Your task to perform on an android device: Go to Google maps Image 0: 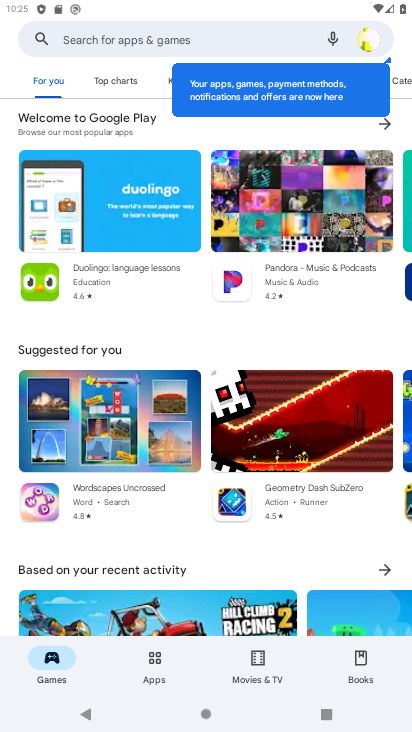
Step 0: press home button
Your task to perform on an android device: Go to Google maps Image 1: 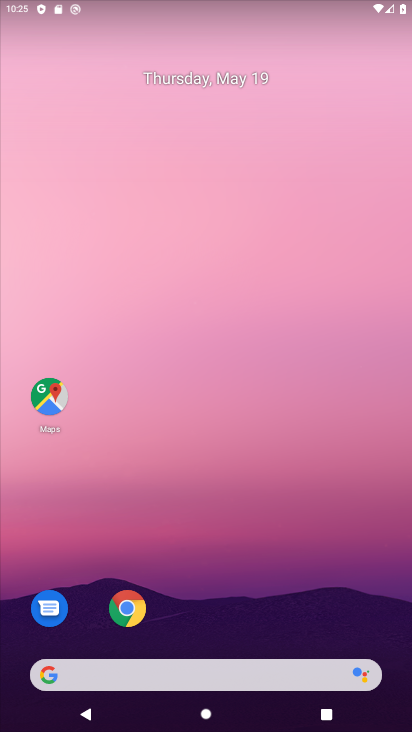
Step 1: click (37, 391)
Your task to perform on an android device: Go to Google maps Image 2: 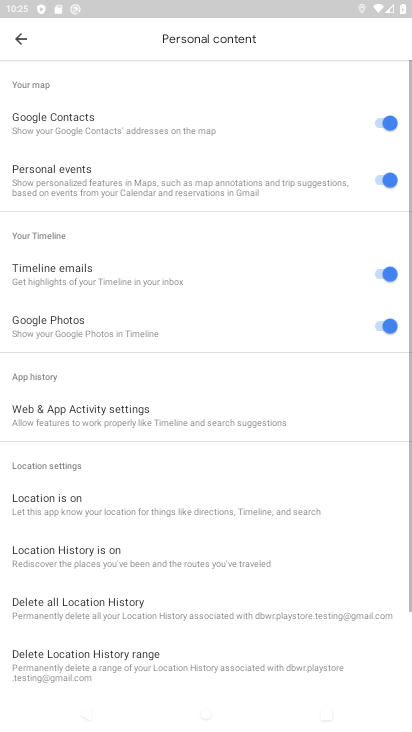
Step 2: task complete